Your task to perform on an android device: Go to Maps Image 0: 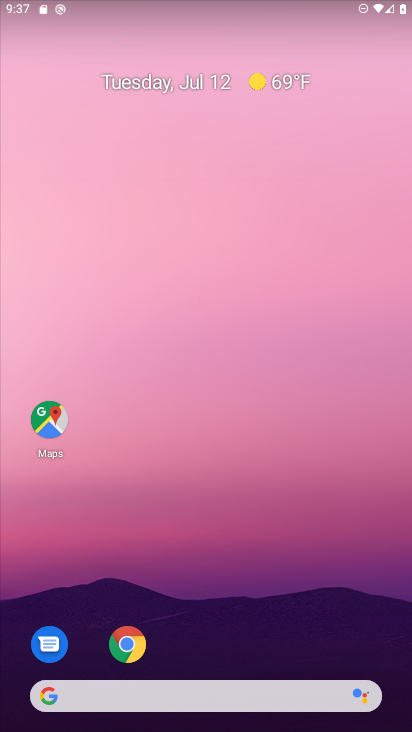
Step 0: press home button
Your task to perform on an android device: Go to Maps Image 1: 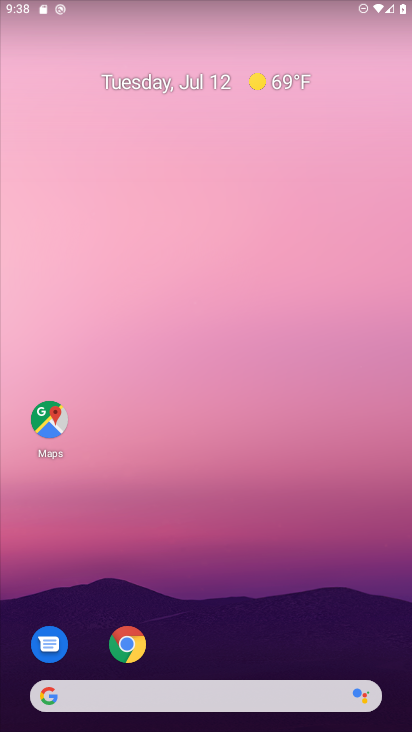
Step 1: click (50, 413)
Your task to perform on an android device: Go to Maps Image 2: 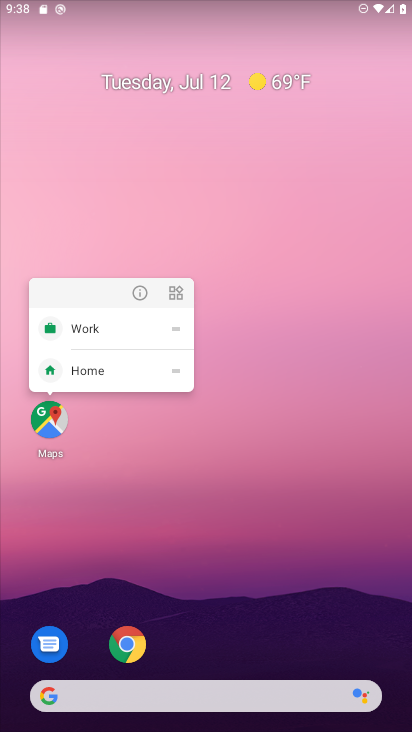
Step 2: click (50, 412)
Your task to perform on an android device: Go to Maps Image 3: 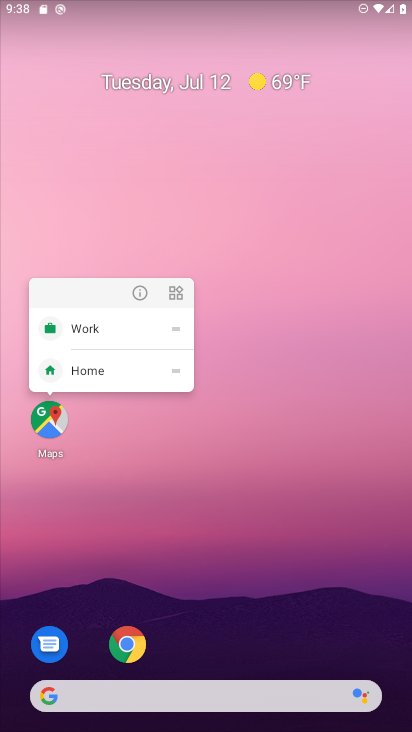
Step 3: click (50, 412)
Your task to perform on an android device: Go to Maps Image 4: 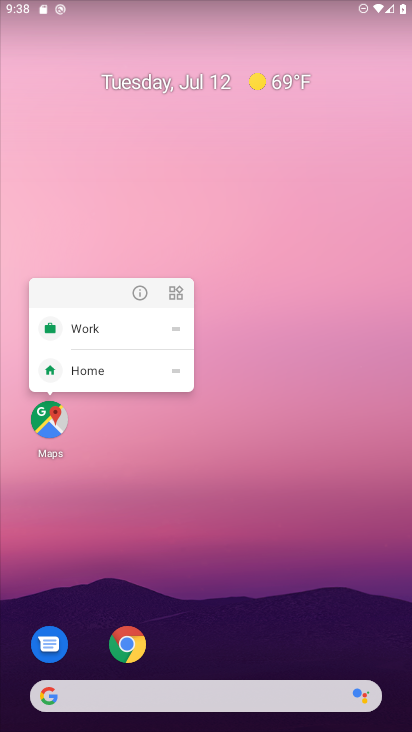
Step 4: click (50, 412)
Your task to perform on an android device: Go to Maps Image 5: 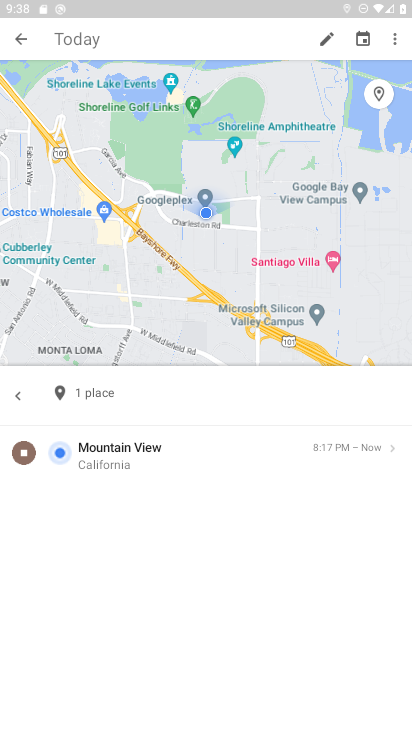
Step 5: click (24, 38)
Your task to perform on an android device: Go to Maps Image 6: 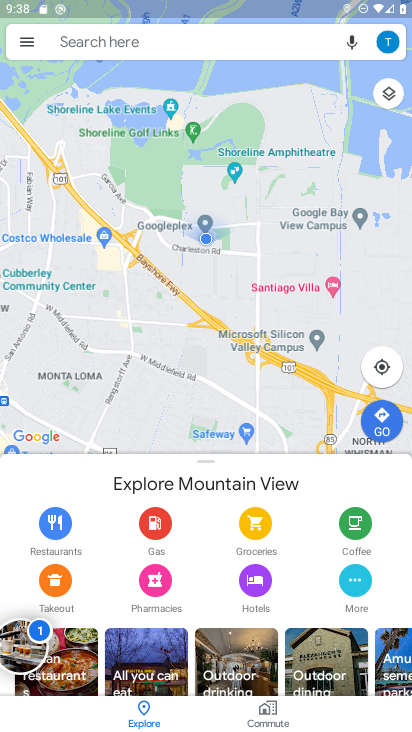
Step 6: task complete